Your task to perform on an android device: toggle wifi Image 0: 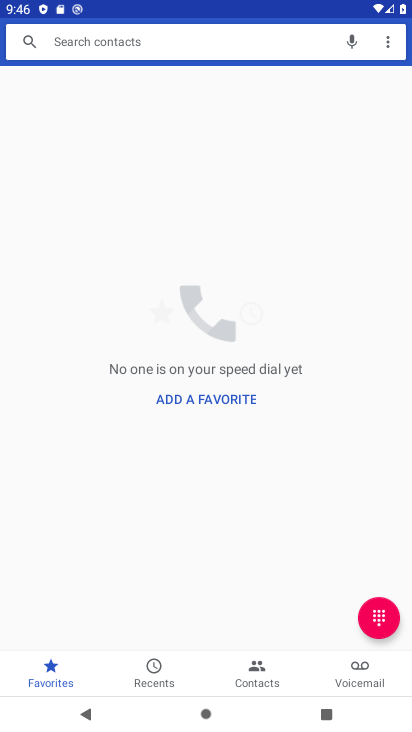
Step 0: press back button
Your task to perform on an android device: toggle wifi Image 1: 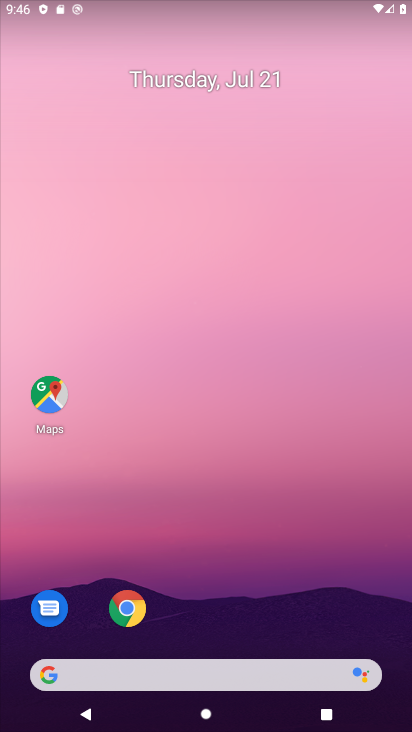
Step 1: drag from (221, 449) to (169, 5)
Your task to perform on an android device: toggle wifi Image 2: 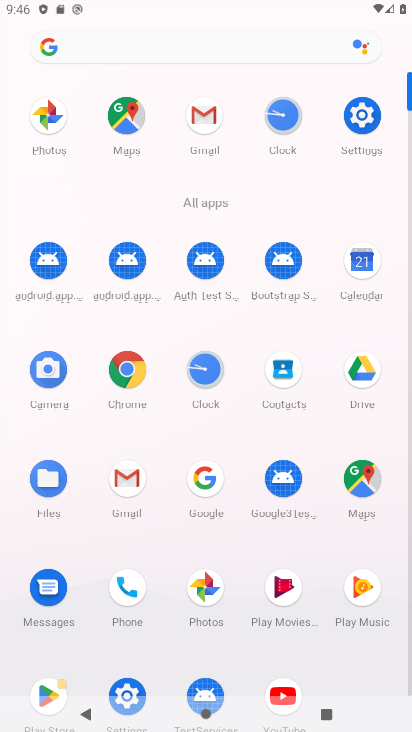
Step 2: click (360, 124)
Your task to perform on an android device: toggle wifi Image 3: 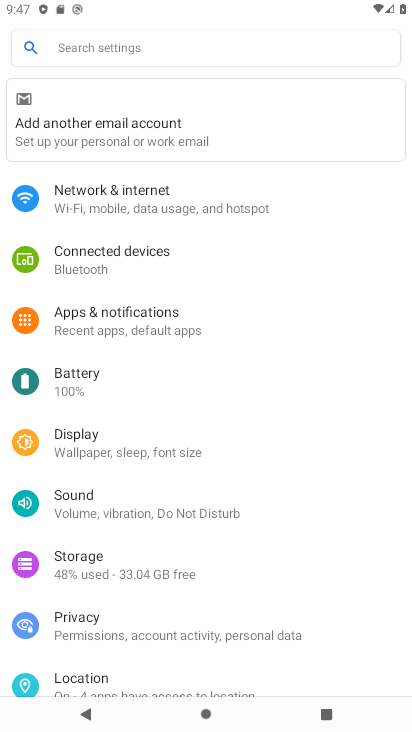
Step 3: click (91, 206)
Your task to perform on an android device: toggle wifi Image 4: 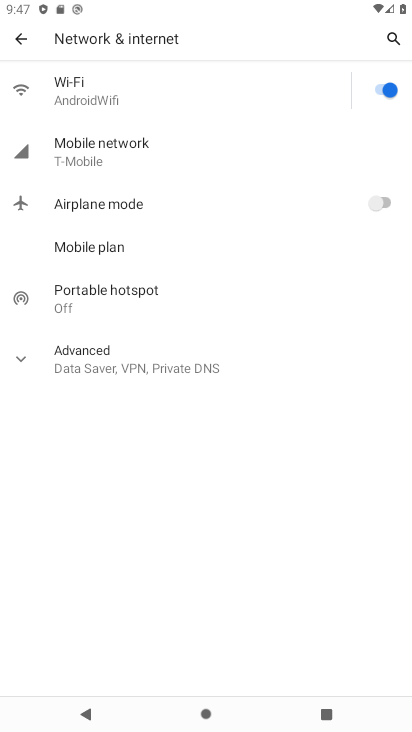
Step 4: click (381, 92)
Your task to perform on an android device: toggle wifi Image 5: 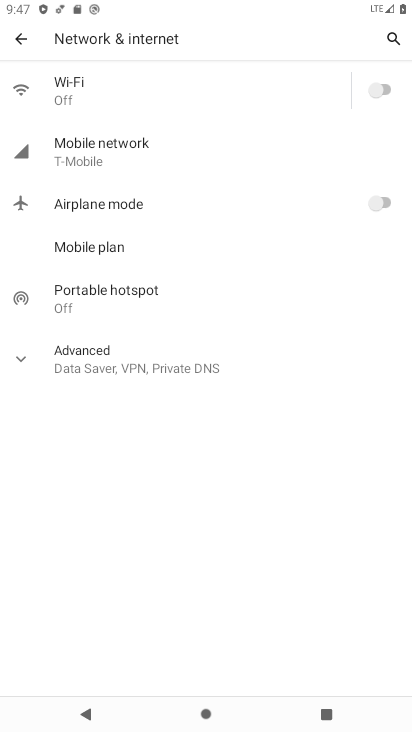
Step 5: click (392, 92)
Your task to perform on an android device: toggle wifi Image 6: 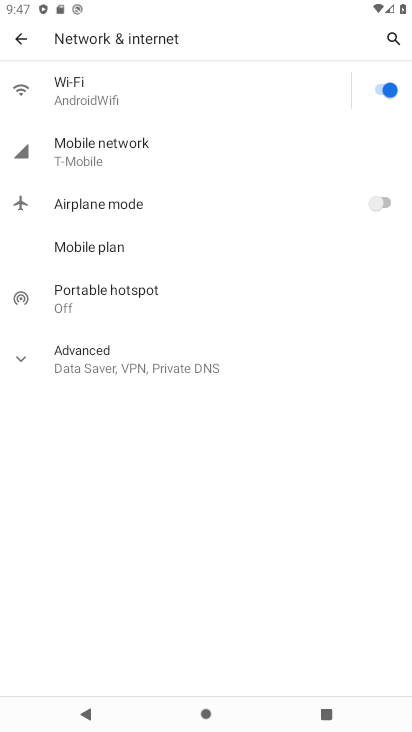
Step 6: task complete